Your task to perform on an android device: set an alarm Image 0: 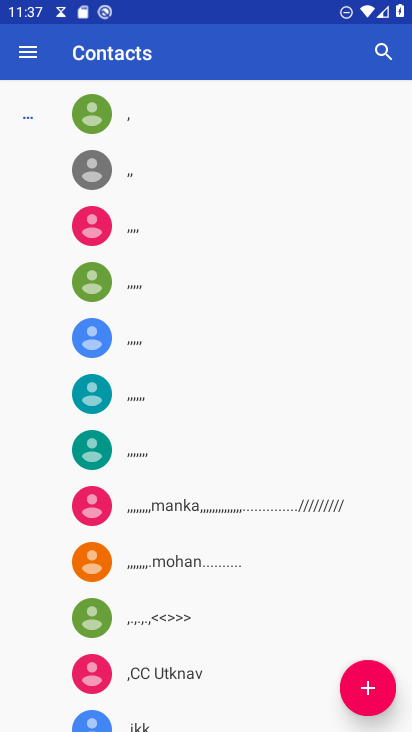
Step 0: press home button
Your task to perform on an android device: set an alarm Image 1: 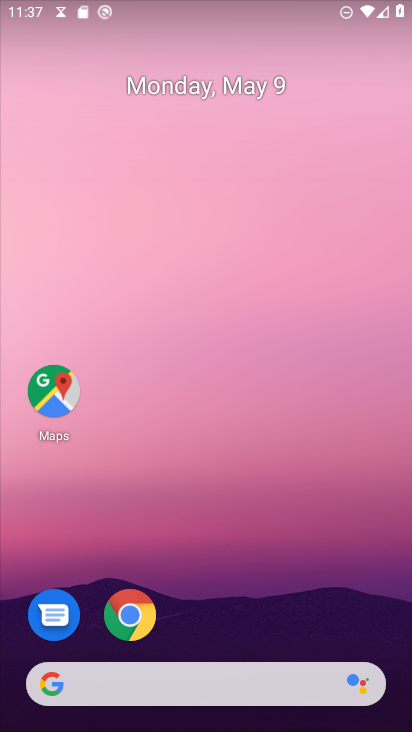
Step 1: drag from (225, 716) to (242, 256)
Your task to perform on an android device: set an alarm Image 2: 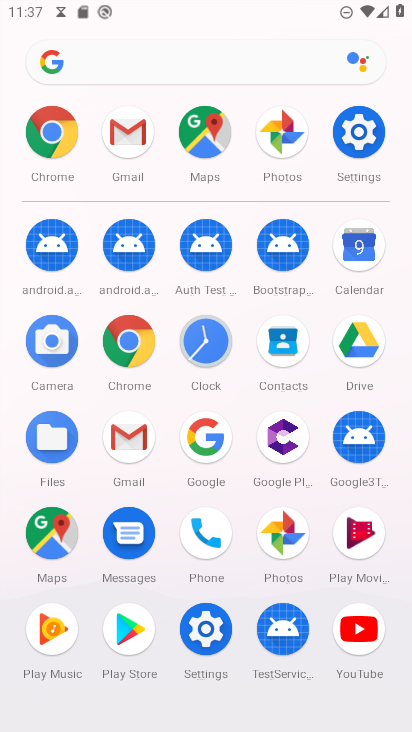
Step 2: click (198, 354)
Your task to perform on an android device: set an alarm Image 3: 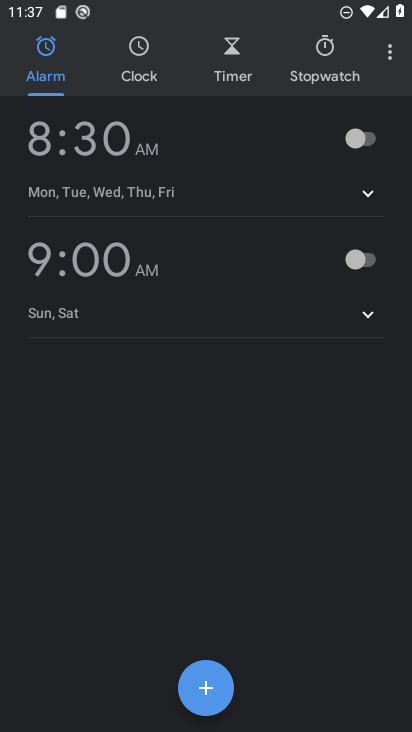
Step 3: click (206, 681)
Your task to perform on an android device: set an alarm Image 4: 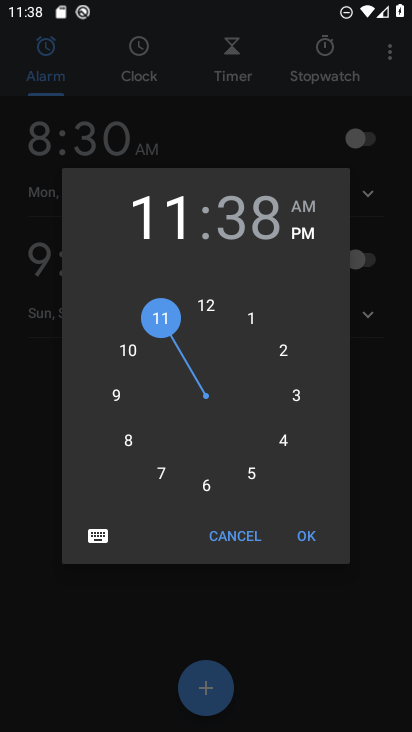
Step 4: click (296, 391)
Your task to perform on an android device: set an alarm Image 5: 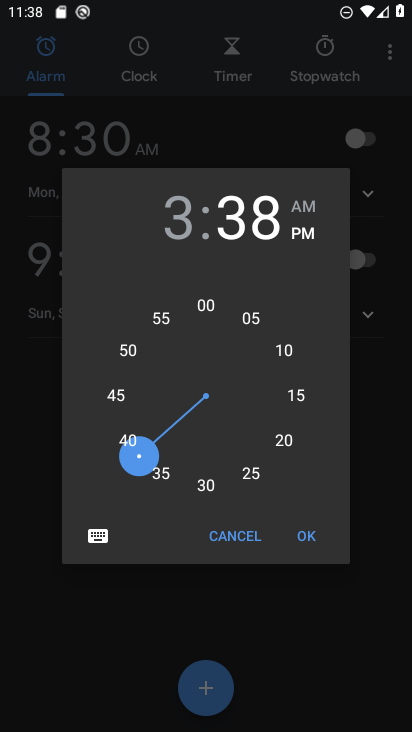
Step 5: click (306, 532)
Your task to perform on an android device: set an alarm Image 6: 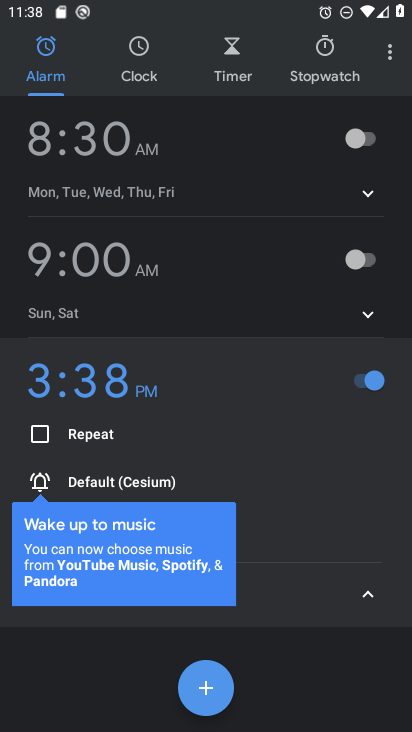
Step 6: task complete